Your task to perform on an android device: Open accessibility settings Image 0: 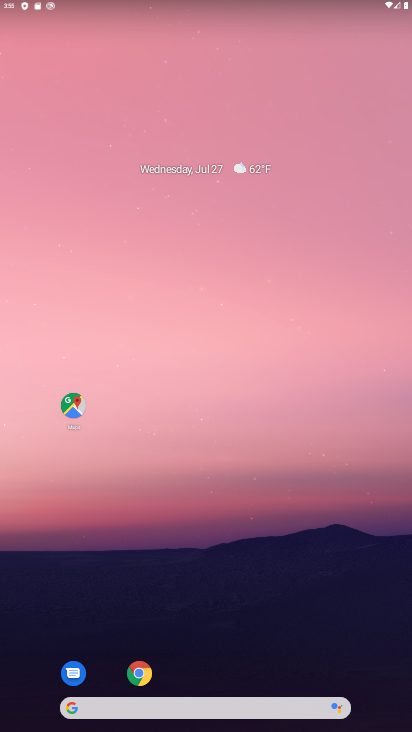
Step 0: press home button
Your task to perform on an android device: Open accessibility settings Image 1: 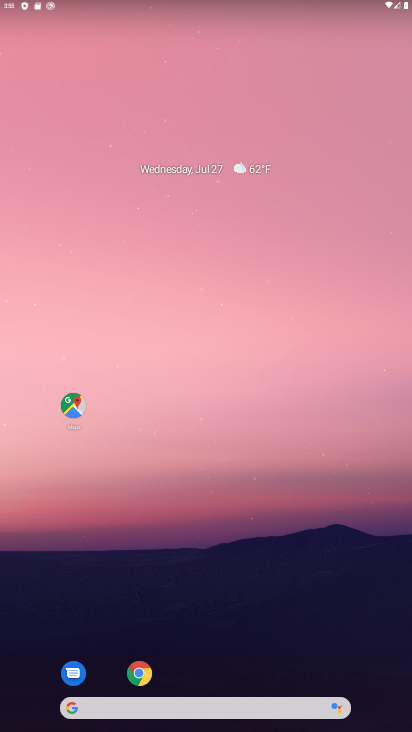
Step 1: drag from (39, 586) to (201, 144)
Your task to perform on an android device: Open accessibility settings Image 2: 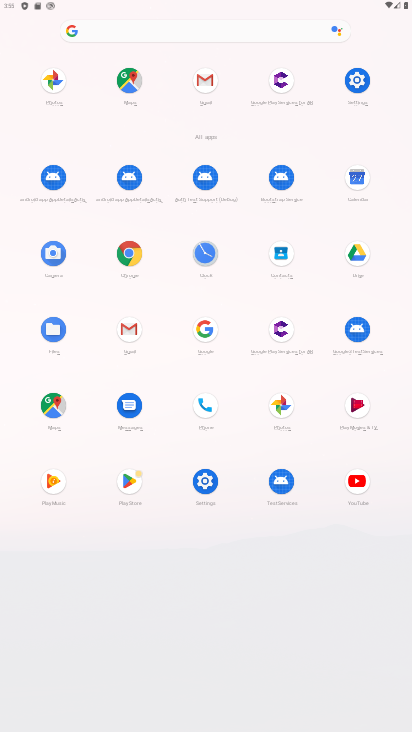
Step 2: click (350, 85)
Your task to perform on an android device: Open accessibility settings Image 3: 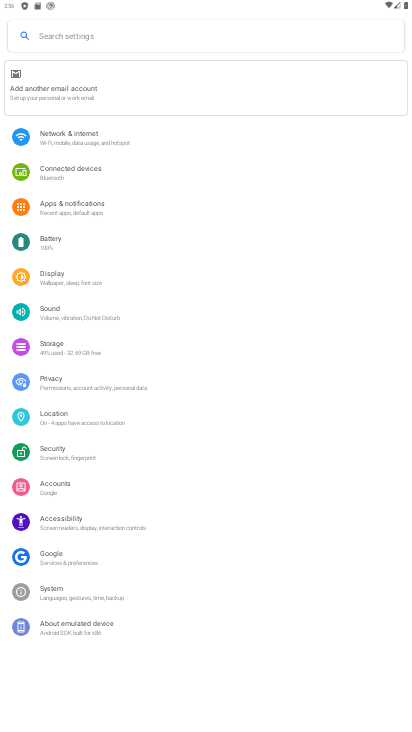
Step 3: click (92, 527)
Your task to perform on an android device: Open accessibility settings Image 4: 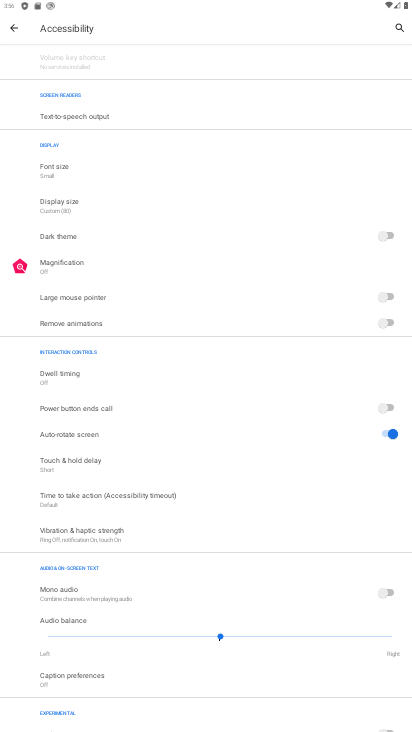
Step 4: task complete